Your task to perform on an android device: Open calendar and show me the first week of next month Image 0: 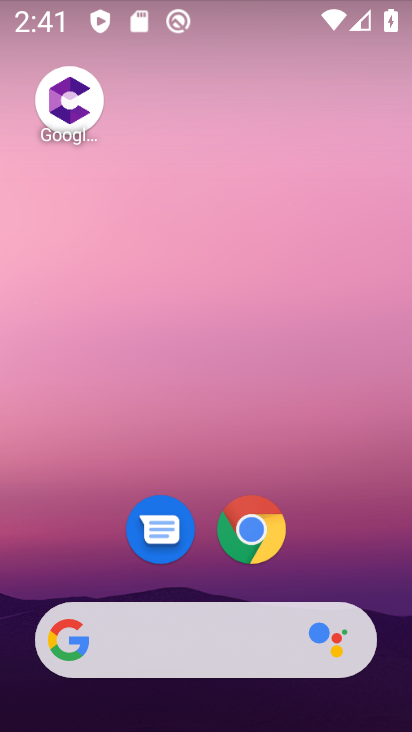
Step 0: drag from (349, 522) to (291, 20)
Your task to perform on an android device: Open calendar and show me the first week of next month Image 1: 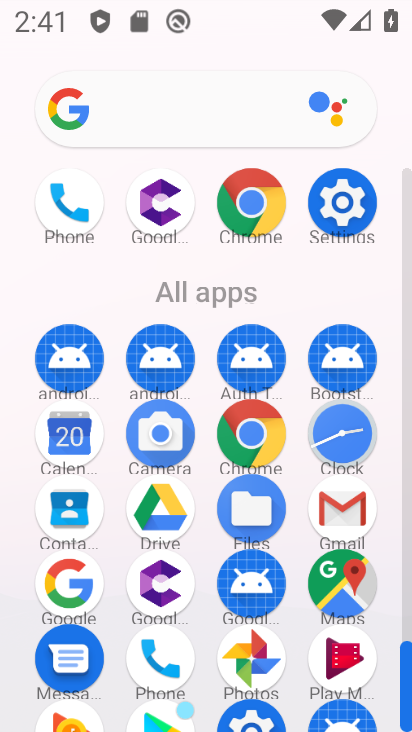
Step 1: click (68, 444)
Your task to perform on an android device: Open calendar and show me the first week of next month Image 2: 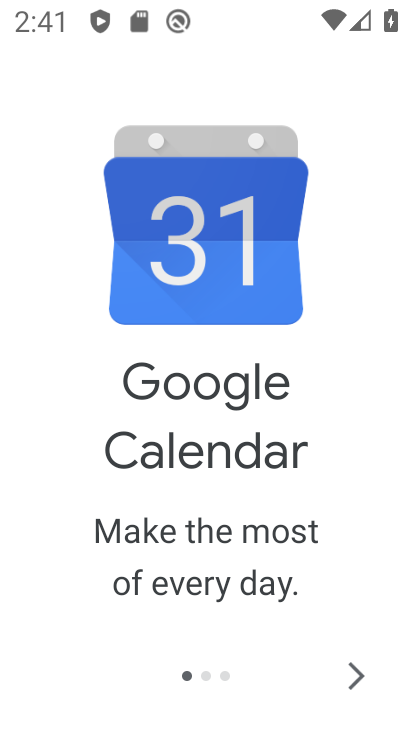
Step 2: click (361, 669)
Your task to perform on an android device: Open calendar and show me the first week of next month Image 3: 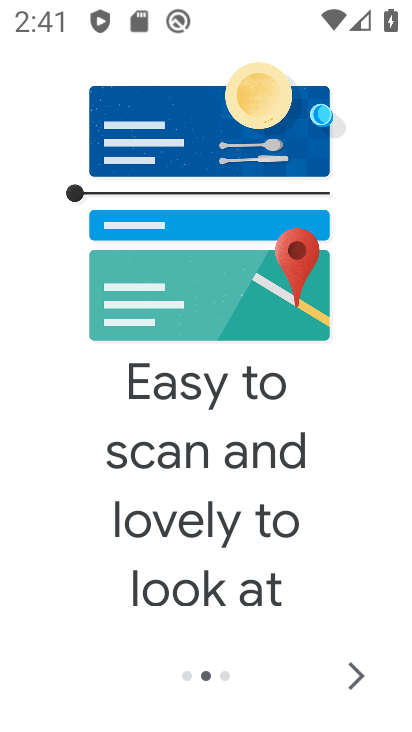
Step 3: click (361, 669)
Your task to perform on an android device: Open calendar and show me the first week of next month Image 4: 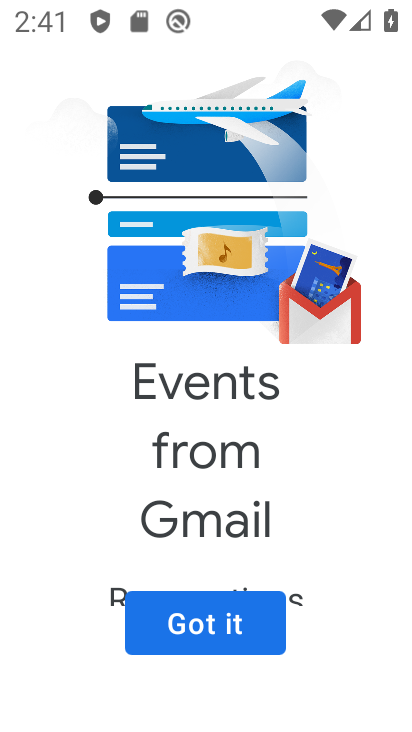
Step 4: click (251, 628)
Your task to perform on an android device: Open calendar and show me the first week of next month Image 5: 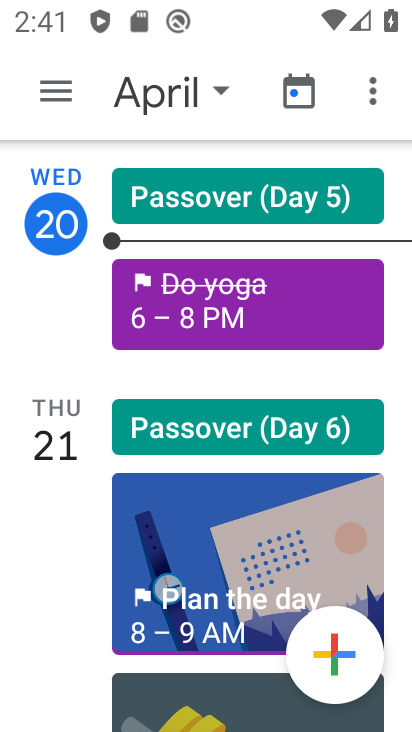
Step 5: click (155, 80)
Your task to perform on an android device: Open calendar and show me the first week of next month Image 6: 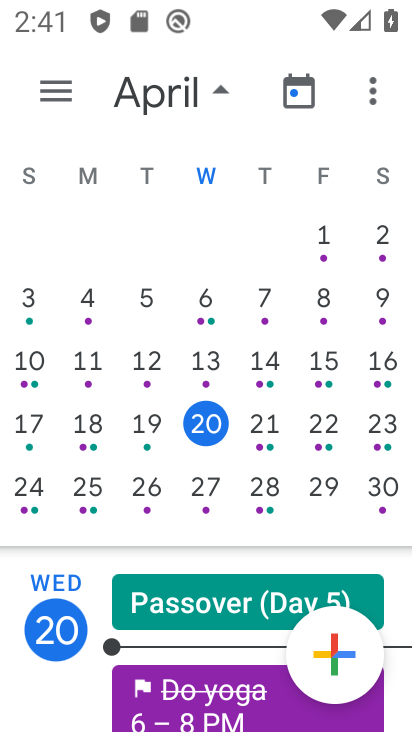
Step 6: task complete